Your task to perform on an android device: check storage Image 0: 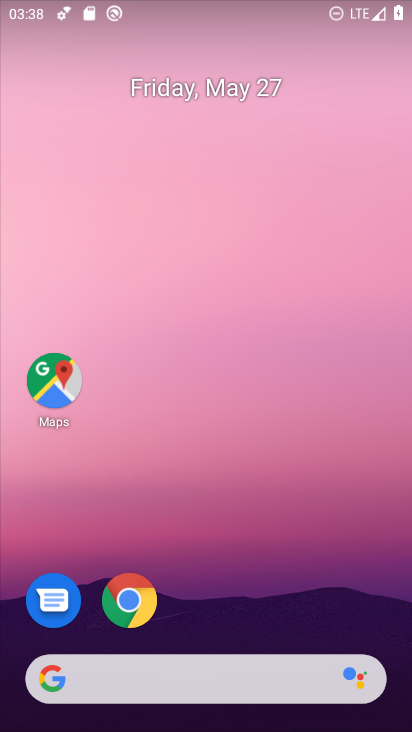
Step 0: drag from (220, 722) to (225, 72)
Your task to perform on an android device: check storage Image 1: 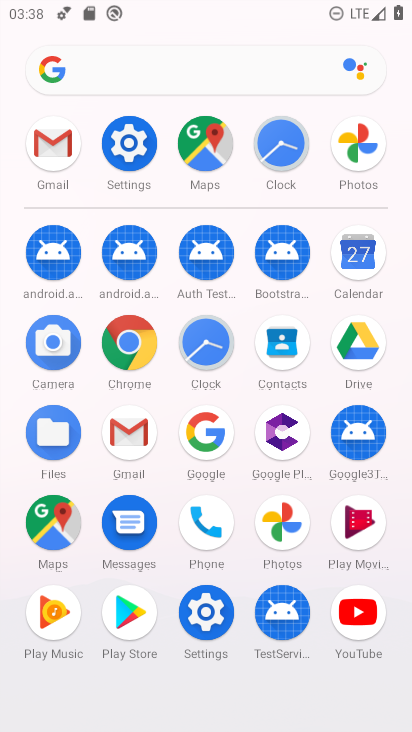
Step 1: click (134, 138)
Your task to perform on an android device: check storage Image 2: 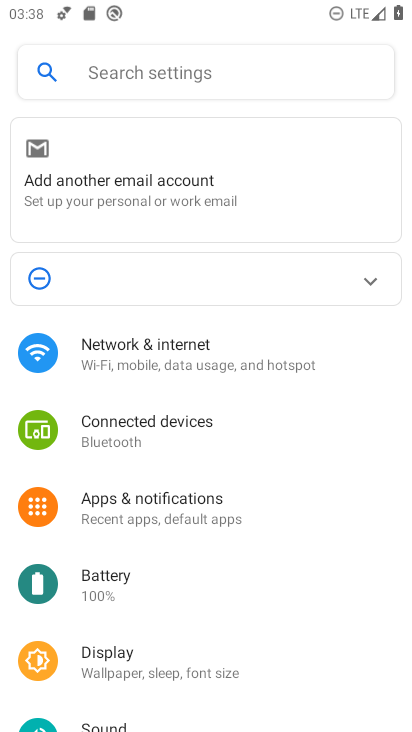
Step 2: drag from (143, 673) to (139, 337)
Your task to perform on an android device: check storage Image 3: 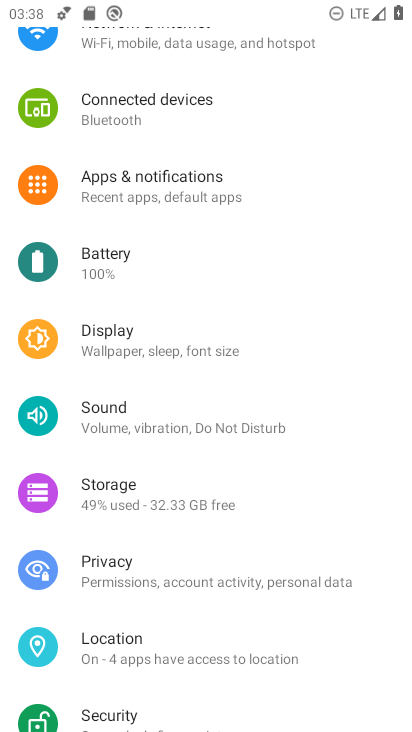
Step 3: click (152, 500)
Your task to perform on an android device: check storage Image 4: 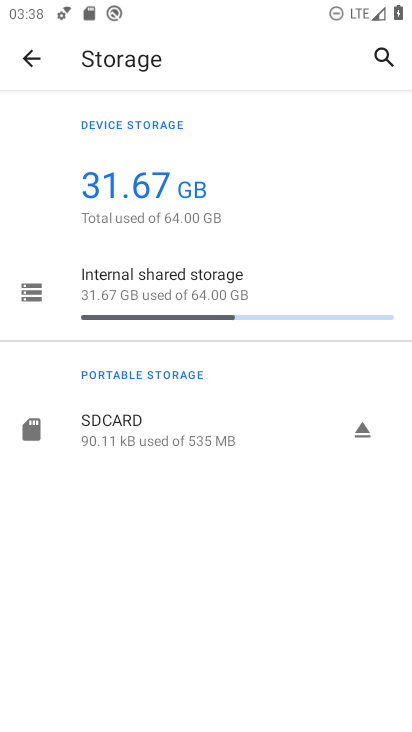
Step 4: task complete